Your task to perform on an android device: Go to notification settings Image 0: 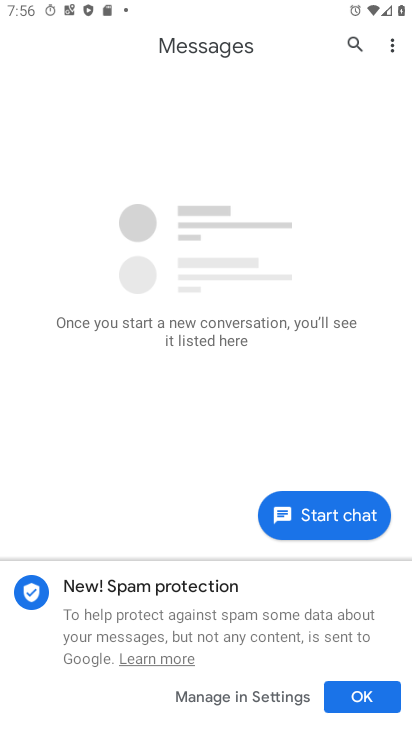
Step 0: press home button
Your task to perform on an android device: Go to notification settings Image 1: 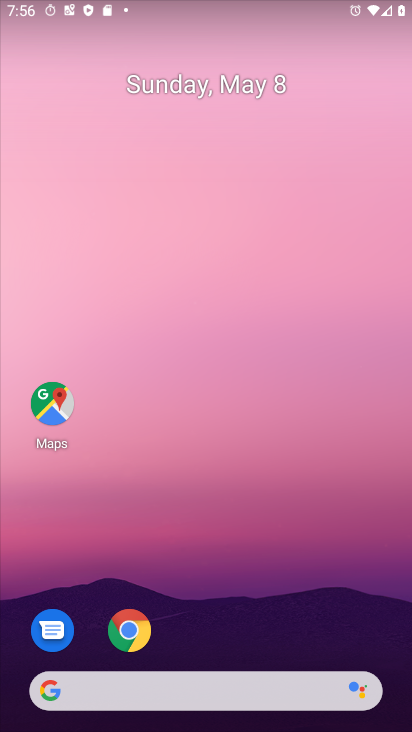
Step 1: drag from (226, 666) to (140, 31)
Your task to perform on an android device: Go to notification settings Image 2: 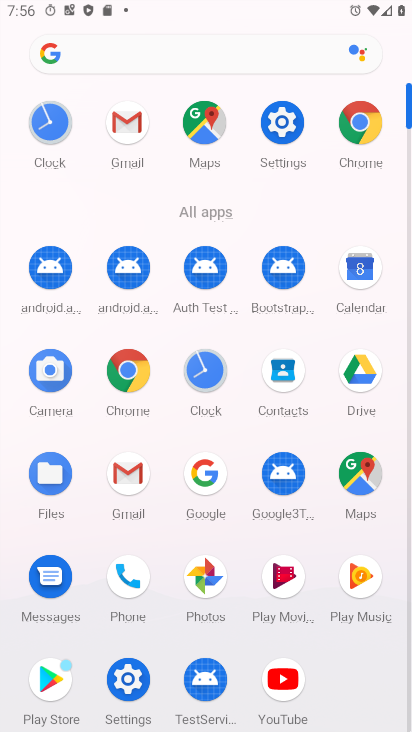
Step 2: click (287, 120)
Your task to perform on an android device: Go to notification settings Image 3: 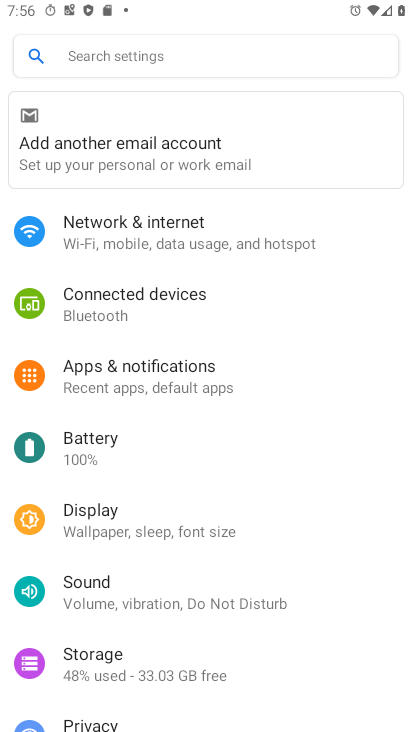
Step 3: click (116, 380)
Your task to perform on an android device: Go to notification settings Image 4: 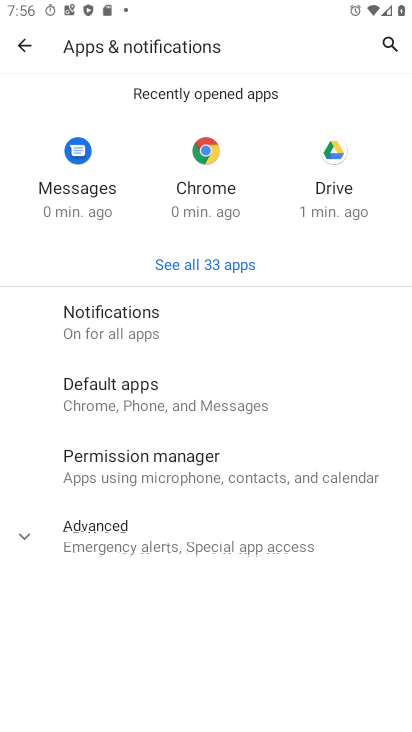
Step 4: click (136, 339)
Your task to perform on an android device: Go to notification settings Image 5: 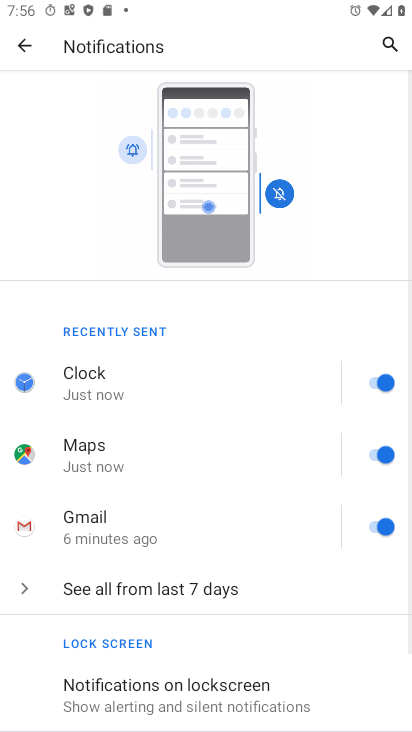
Step 5: task complete